Your task to perform on an android device: search for starred emails in the gmail app Image 0: 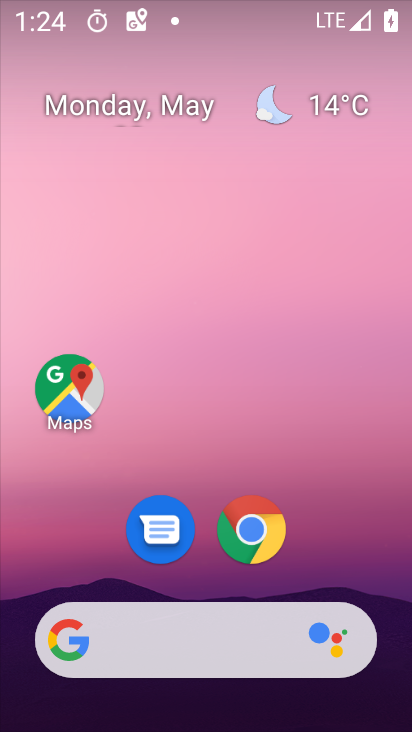
Step 0: drag from (373, 586) to (373, 262)
Your task to perform on an android device: search for starred emails in the gmail app Image 1: 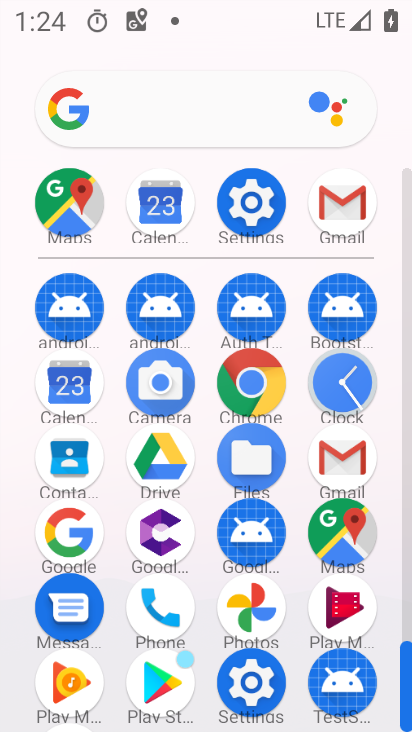
Step 1: click (354, 474)
Your task to perform on an android device: search for starred emails in the gmail app Image 2: 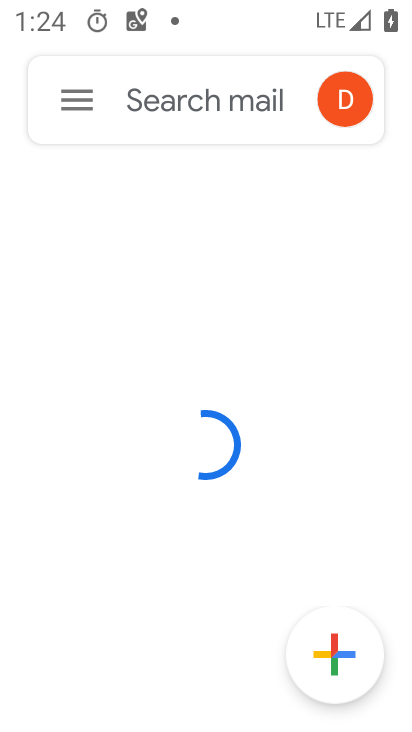
Step 2: click (80, 101)
Your task to perform on an android device: search for starred emails in the gmail app Image 3: 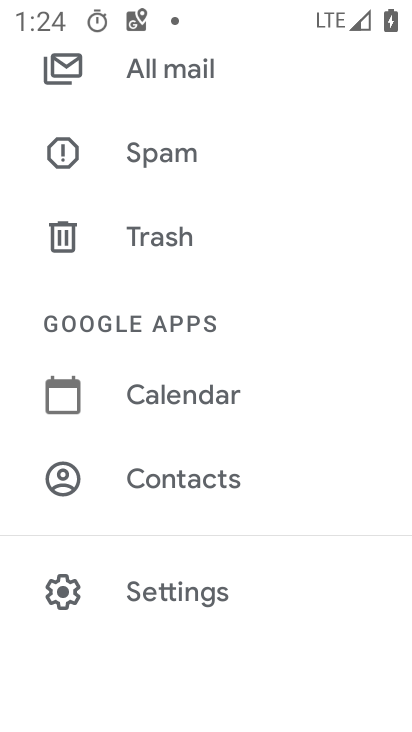
Step 3: drag from (302, 295) to (295, 423)
Your task to perform on an android device: search for starred emails in the gmail app Image 4: 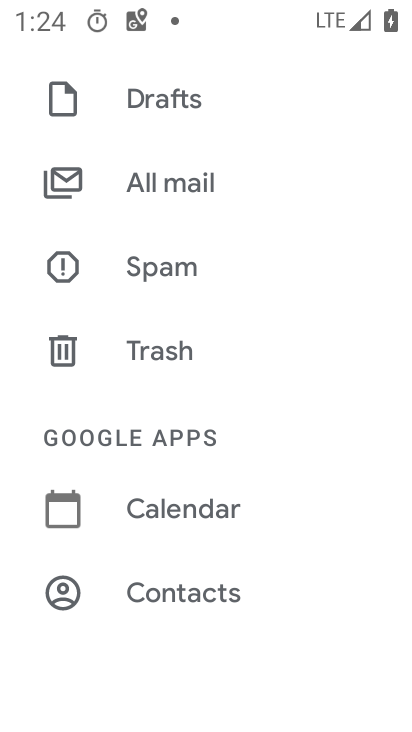
Step 4: drag from (321, 264) to (305, 407)
Your task to perform on an android device: search for starred emails in the gmail app Image 5: 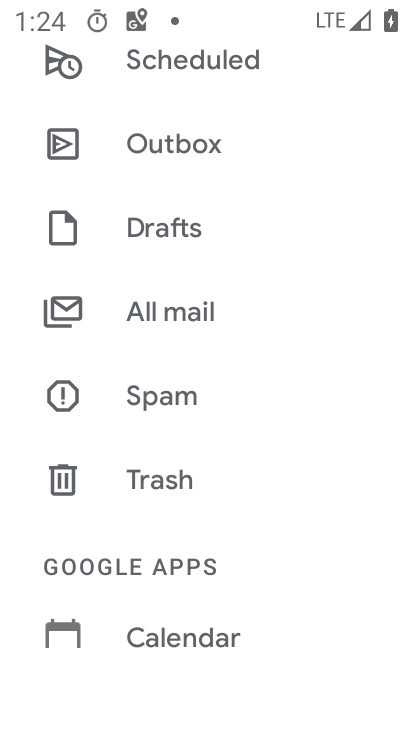
Step 5: drag from (304, 223) to (282, 395)
Your task to perform on an android device: search for starred emails in the gmail app Image 6: 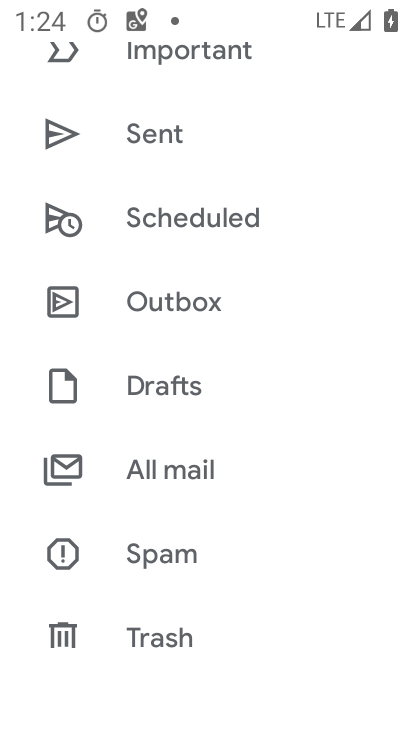
Step 6: drag from (311, 181) to (296, 351)
Your task to perform on an android device: search for starred emails in the gmail app Image 7: 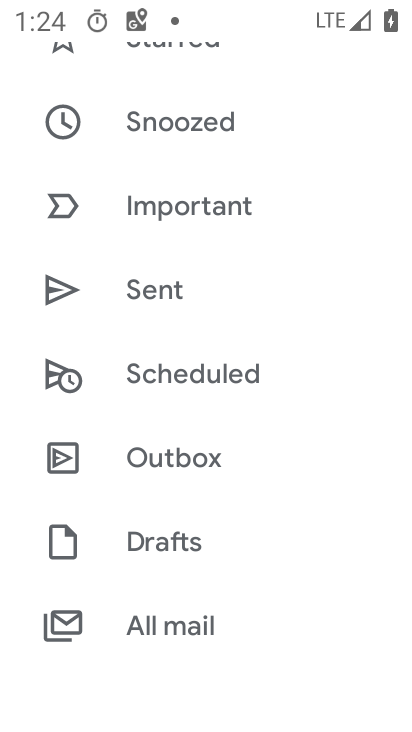
Step 7: drag from (296, 177) to (289, 350)
Your task to perform on an android device: search for starred emails in the gmail app Image 8: 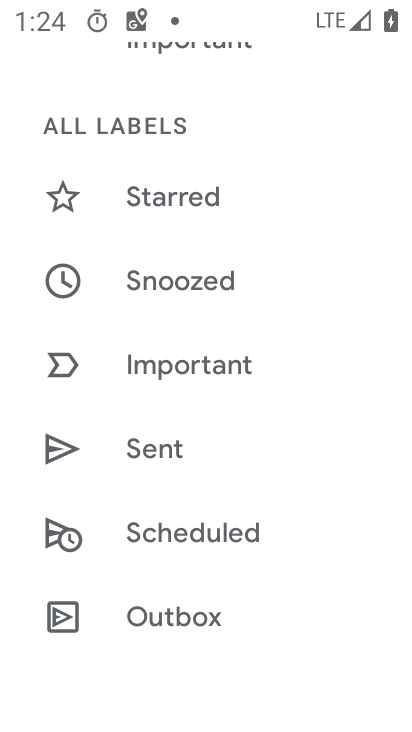
Step 8: drag from (315, 182) to (291, 351)
Your task to perform on an android device: search for starred emails in the gmail app Image 9: 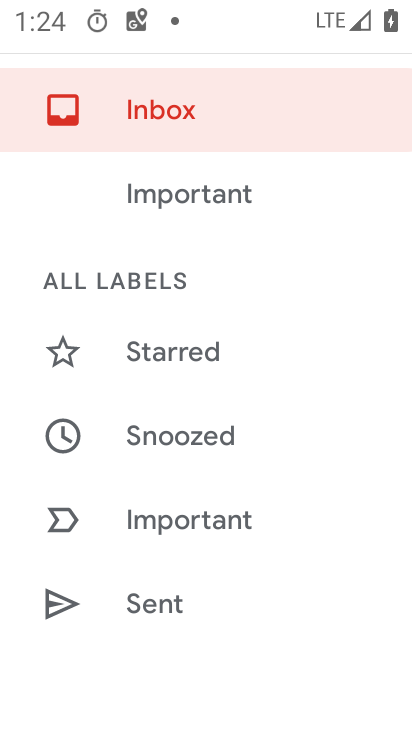
Step 9: drag from (308, 223) to (306, 353)
Your task to perform on an android device: search for starred emails in the gmail app Image 10: 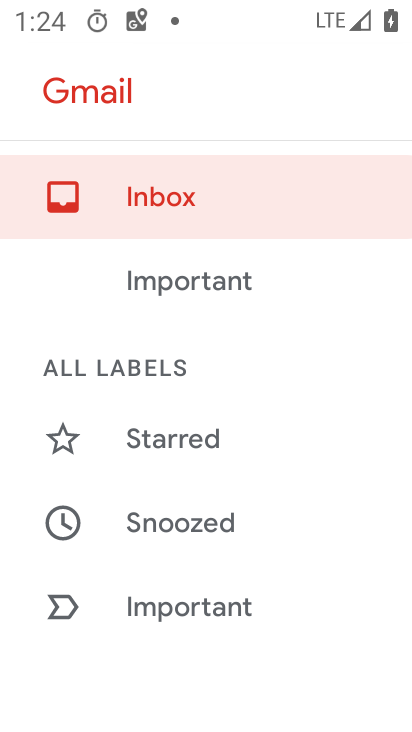
Step 10: drag from (307, 388) to (321, 250)
Your task to perform on an android device: search for starred emails in the gmail app Image 11: 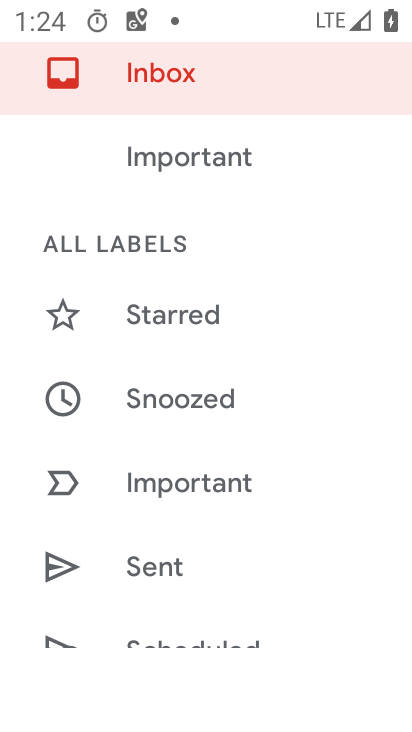
Step 11: drag from (314, 417) to (313, 276)
Your task to perform on an android device: search for starred emails in the gmail app Image 12: 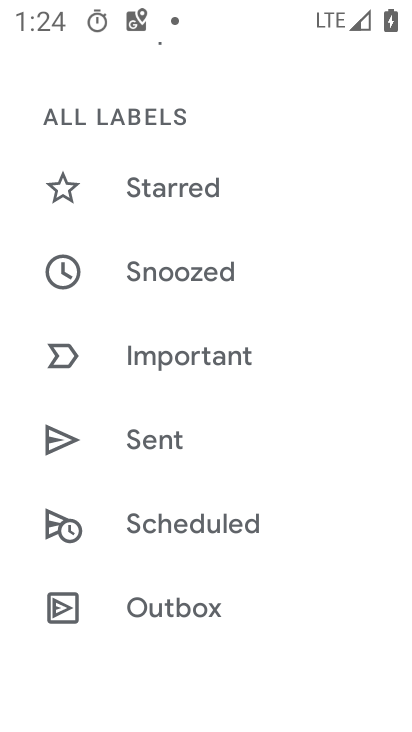
Step 12: drag from (295, 430) to (294, 326)
Your task to perform on an android device: search for starred emails in the gmail app Image 13: 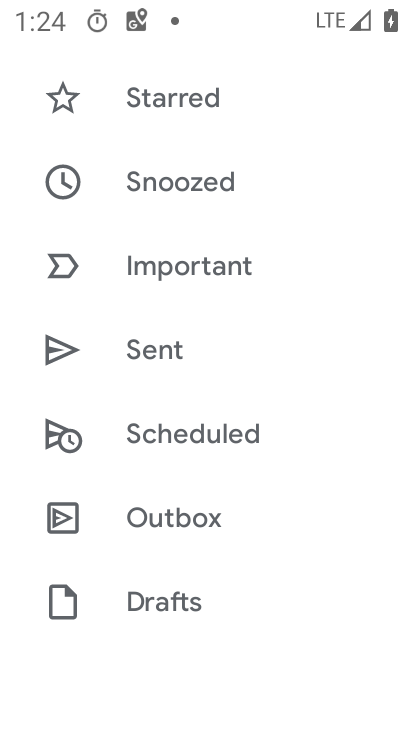
Step 13: drag from (288, 464) to (303, 360)
Your task to perform on an android device: search for starred emails in the gmail app Image 14: 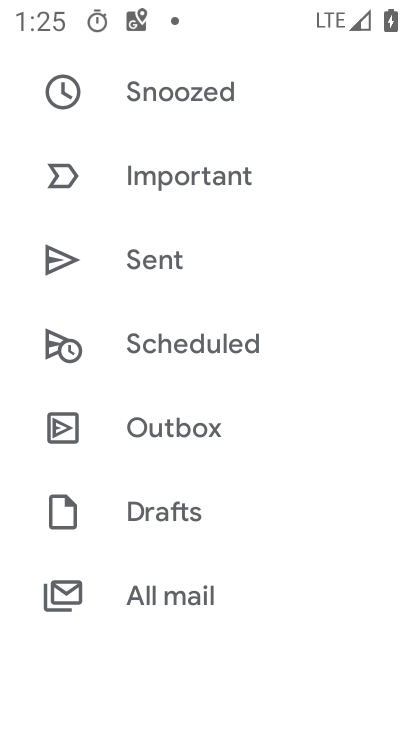
Step 14: drag from (289, 485) to (288, 393)
Your task to perform on an android device: search for starred emails in the gmail app Image 15: 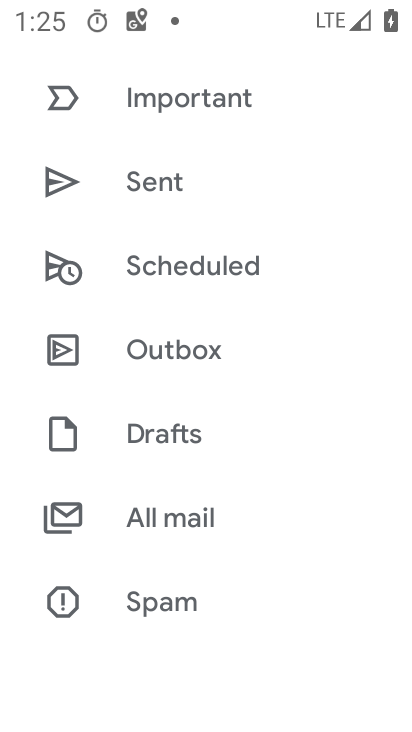
Step 15: drag from (280, 502) to (291, 402)
Your task to perform on an android device: search for starred emails in the gmail app Image 16: 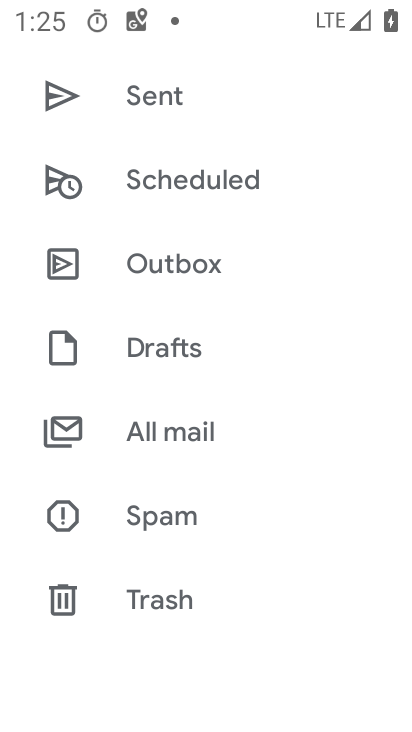
Step 16: drag from (282, 524) to (289, 416)
Your task to perform on an android device: search for starred emails in the gmail app Image 17: 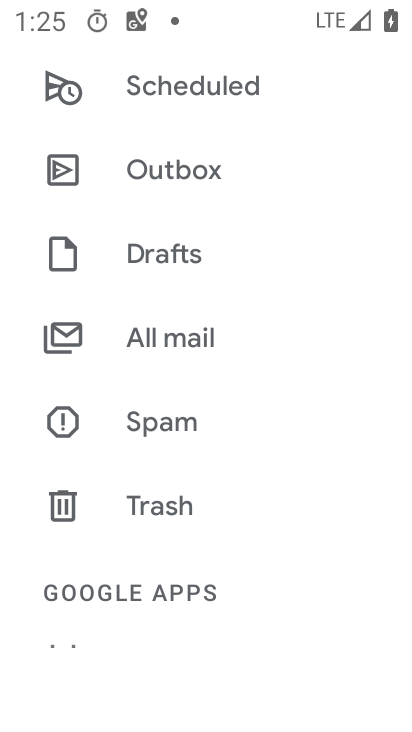
Step 17: drag from (275, 547) to (284, 439)
Your task to perform on an android device: search for starred emails in the gmail app Image 18: 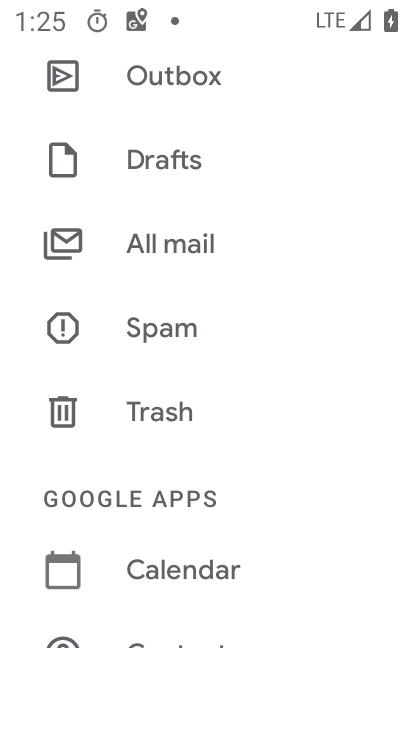
Step 18: drag from (273, 570) to (287, 447)
Your task to perform on an android device: search for starred emails in the gmail app Image 19: 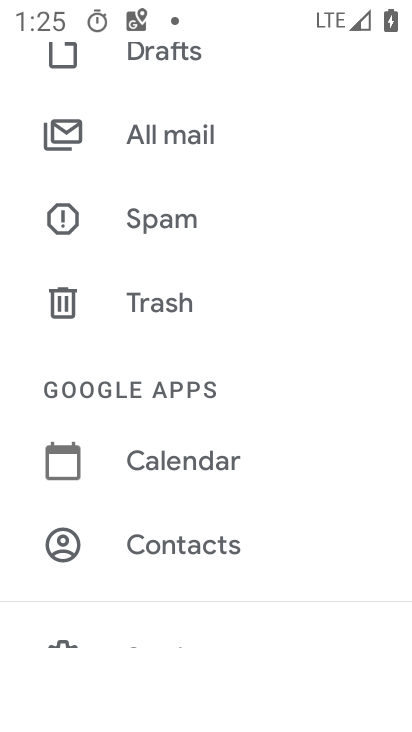
Step 19: drag from (278, 587) to (292, 456)
Your task to perform on an android device: search for starred emails in the gmail app Image 20: 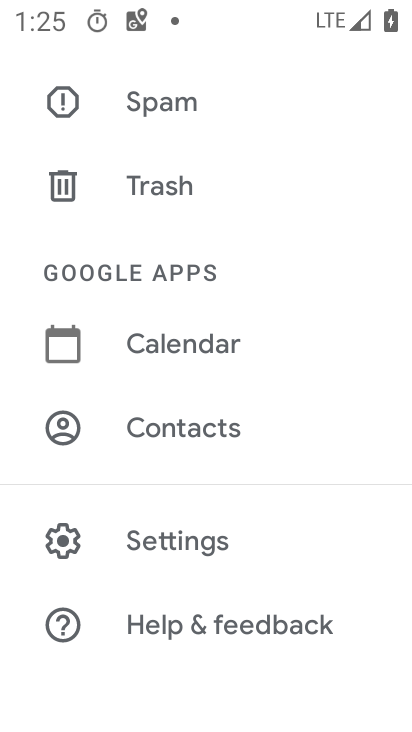
Step 20: drag from (296, 326) to (277, 456)
Your task to perform on an android device: search for starred emails in the gmail app Image 21: 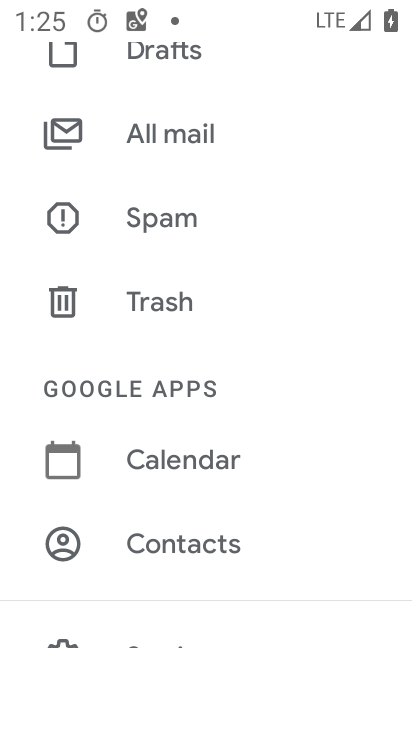
Step 21: drag from (283, 266) to (256, 422)
Your task to perform on an android device: search for starred emails in the gmail app Image 22: 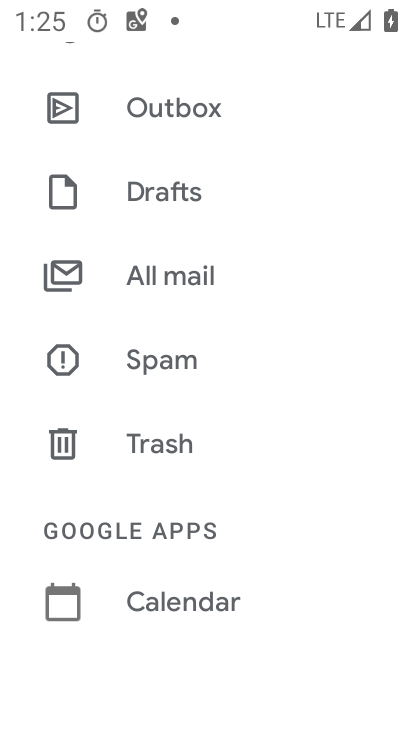
Step 22: drag from (266, 248) to (266, 376)
Your task to perform on an android device: search for starred emails in the gmail app Image 23: 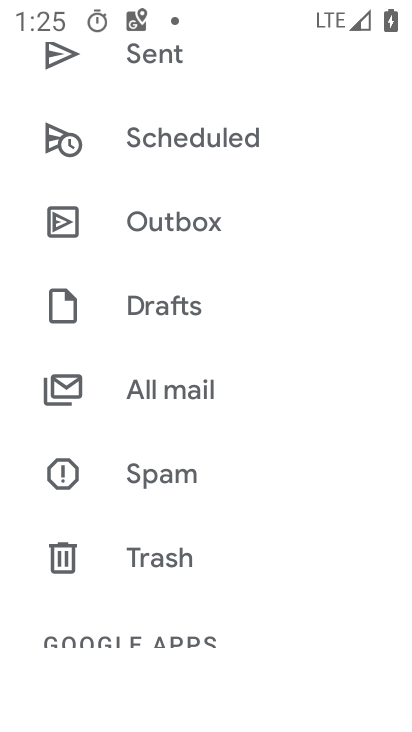
Step 23: drag from (266, 227) to (260, 341)
Your task to perform on an android device: search for starred emails in the gmail app Image 24: 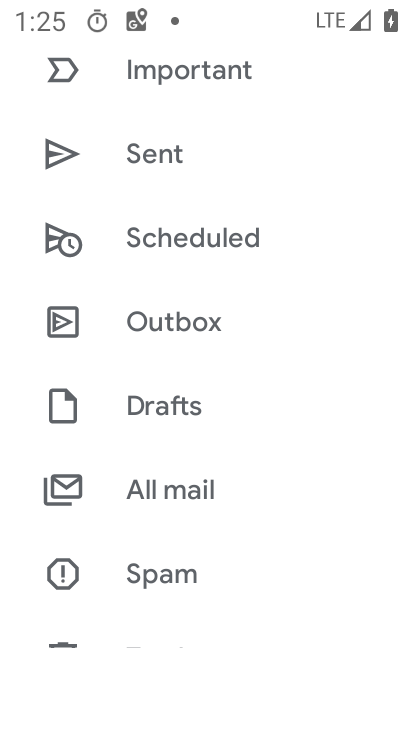
Step 24: drag from (287, 208) to (286, 340)
Your task to perform on an android device: search for starred emails in the gmail app Image 25: 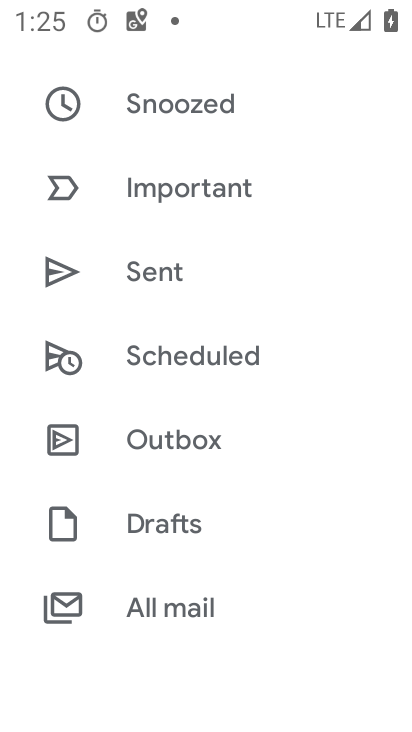
Step 25: drag from (305, 177) to (284, 336)
Your task to perform on an android device: search for starred emails in the gmail app Image 26: 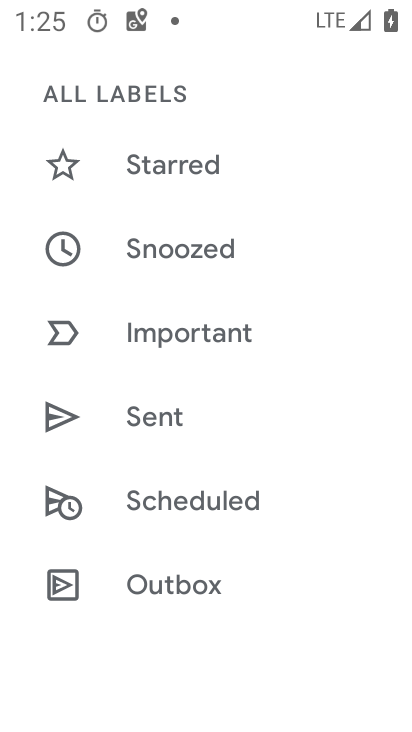
Step 26: click (220, 183)
Your task to perform on an android device: search for starred emails in the gmail app Image 27: 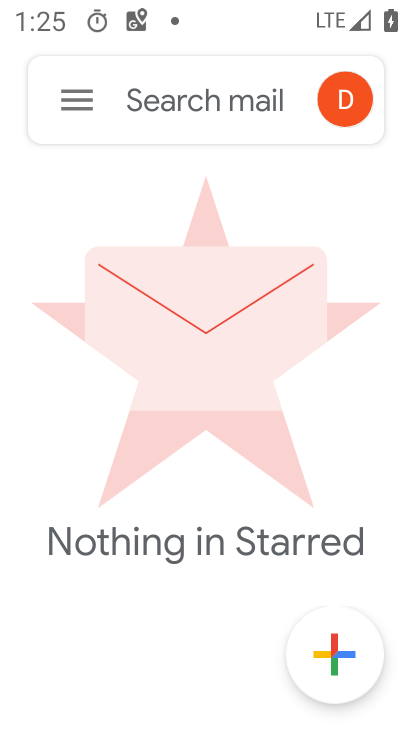
Step 27: task complete